Your task to perform on an android device: turn on notifications settings in the gmail app Image 0: 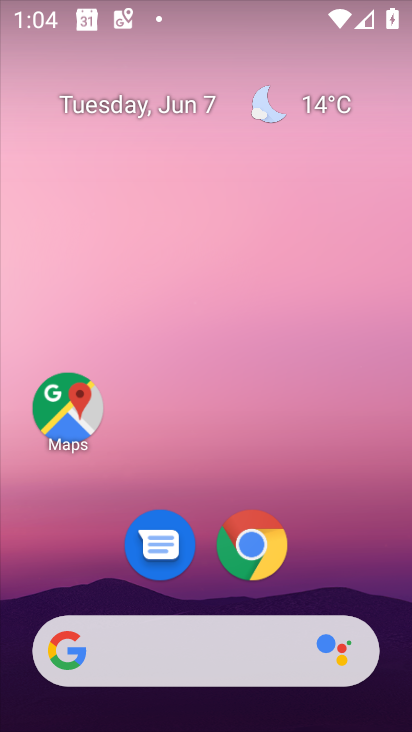
Step 0: drag from (328, 532) to (320, 89)
Your task to perform on an android device: turn on notifications settings in the gmail app Image 1: 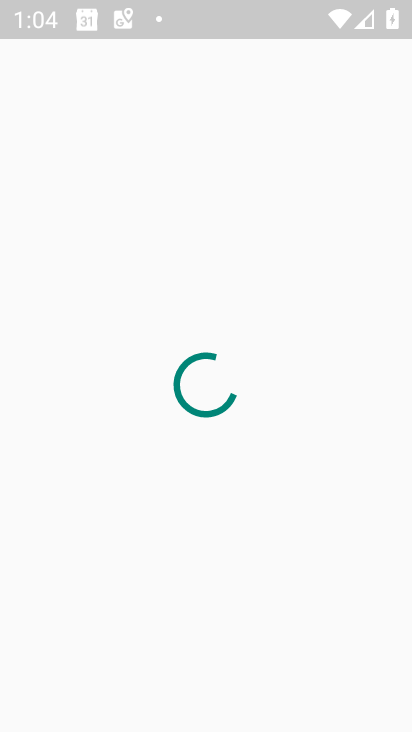
Step 1: click (345, 522)
Your task to perform on an android device: turn on notifications settings in the gmail app Image 2: 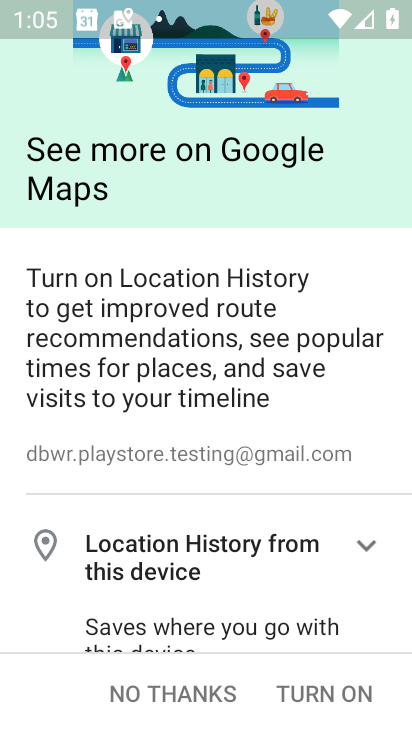
Step 2: click (184, 705)
Your task to perform on an android device: turn on notifications settings in the gmail app Image 3: 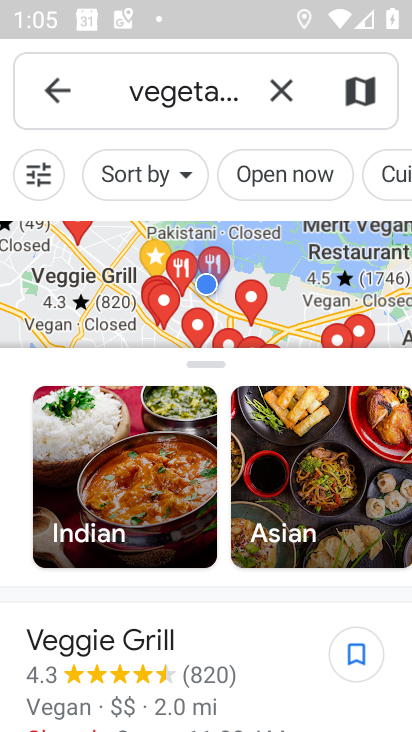
Step 3: press home button
Your task to perform on an android device: turn on notifications settings in the gmail app Image 4: 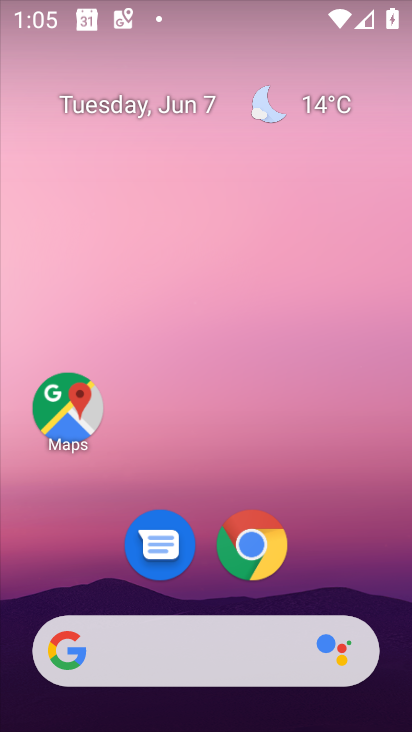
Step 4: drag from (362, 581) to (267, 189)
Your task to perform on an android device: turn on notifications settings in the gmail app Image 5: 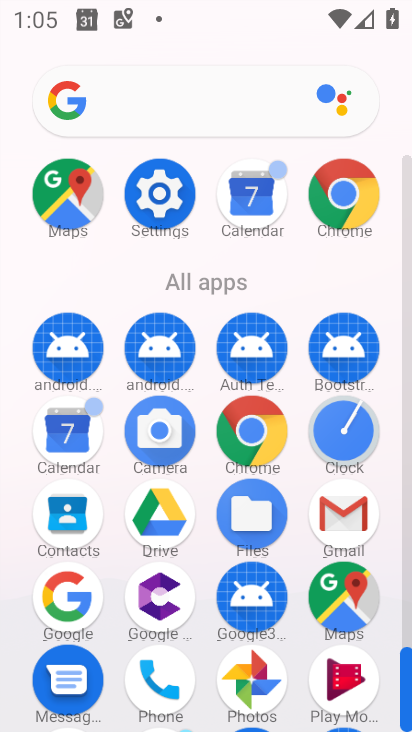
Step 5: click (344, 531)
Your task to perform on an android device: turn on notifications settings in the gmail app Image 6: 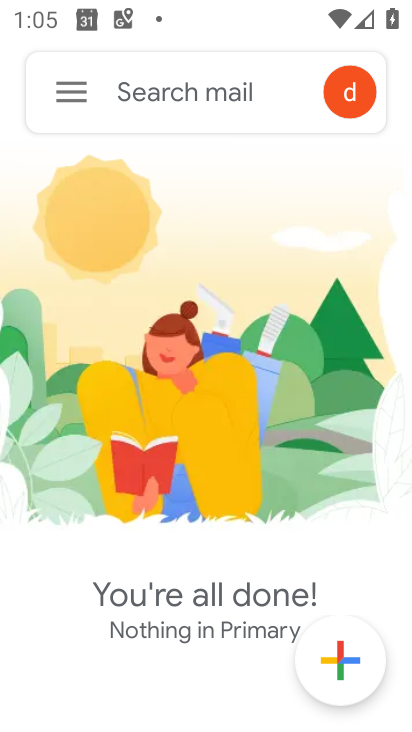
Step 6: click (70, 97)
Your task to perform on an android device: turn on notifications settings in the gmail app Image 7: 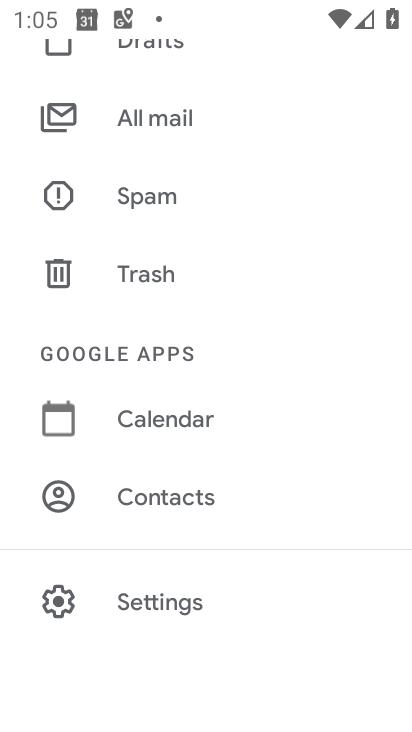
Step 7: click (128, 592)
Your task to perform on an android device: turn on notifications settings in the gmail app Image 8: 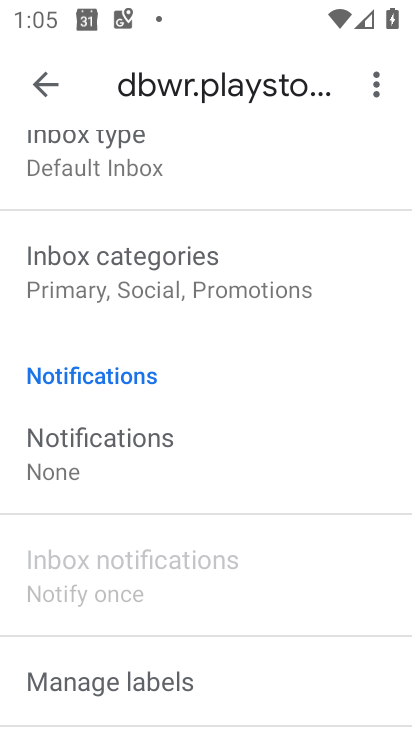
Step 8: drag from (241, 166) to (226, 477)
Your task to perform on an android device: turn on notifications settings in the gmail app Image 9: 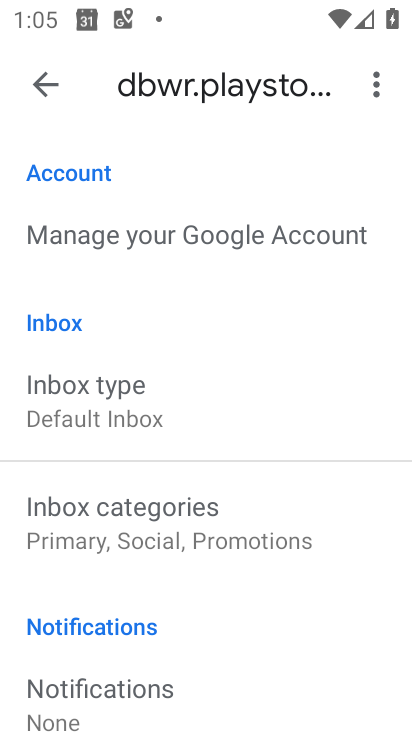
Step 9: drag from (203, 601) to (244, 314)
Your task to perform on an android device: turn on notifications settings in the gmail app Image 10: 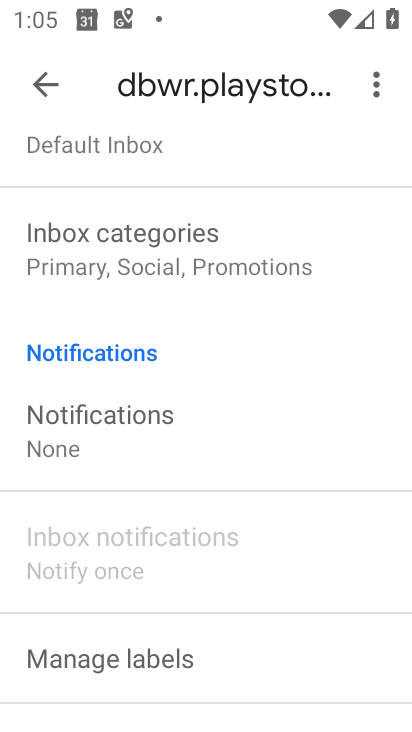
Step 10: click (131, 411)
Your task to perform on an android device: turn on notifications settings in the gmail app Image 11: 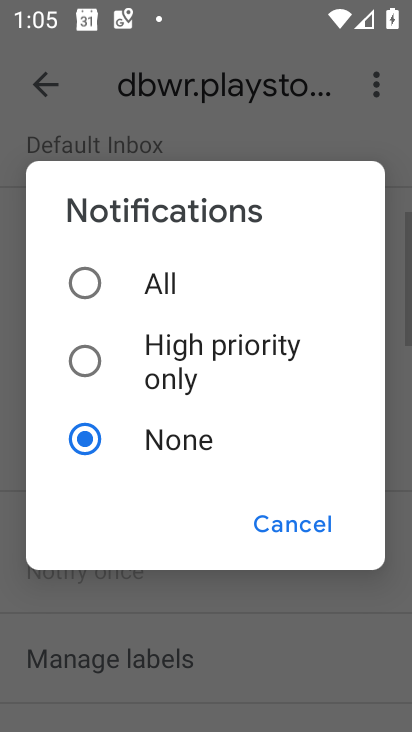
Step 11: click (159, 306)
Your task to perform on an android device: turn on notifications settings in the gmail app Image 12: 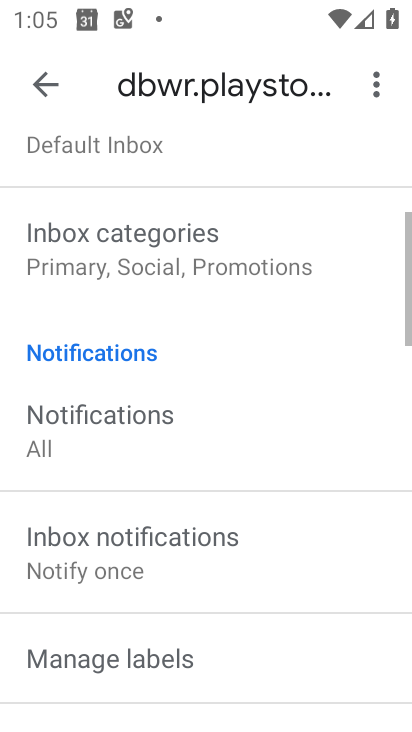
Step 12: task complete